Your task to perform on an android device: Open internet settings Image 0: 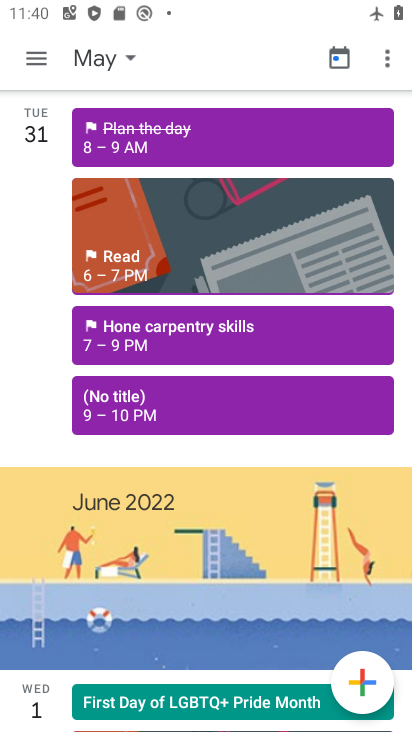
Step 0: press home button
Your task to perform on an android device: Open internet settings Image 1: 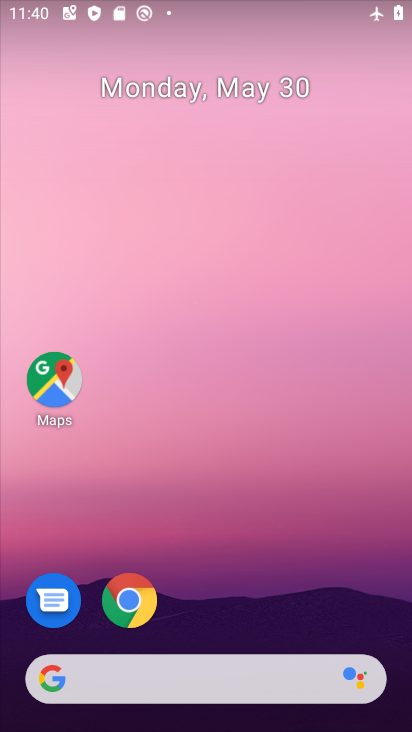
Step 1: drag from (215, 721) to (199, 99)
Your task to perform on an android device: Open internet settings Image 2: 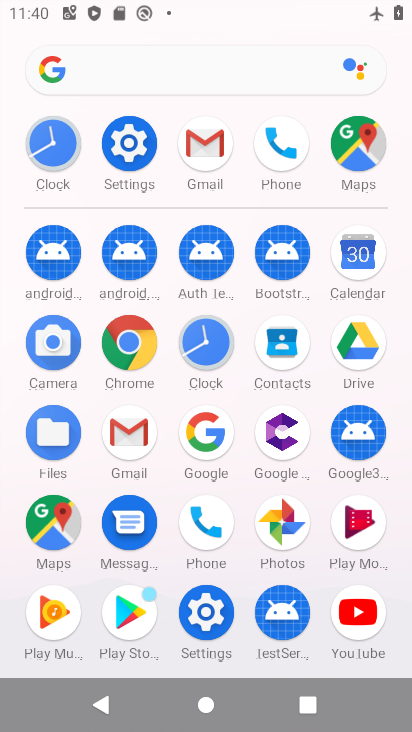
Step 2: click (117, 140)
Your task to perform on an android device: Open internet settings Image 3: 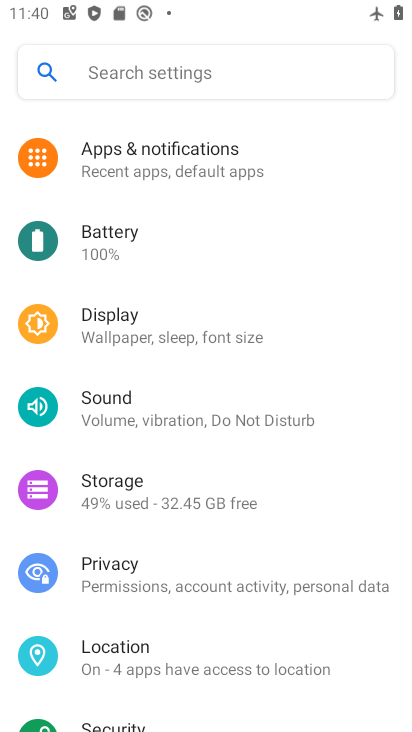
Step 3: drag from (149, 161) to (153, 555)
Your task to perform on an android device: Open internet settings Image 4: 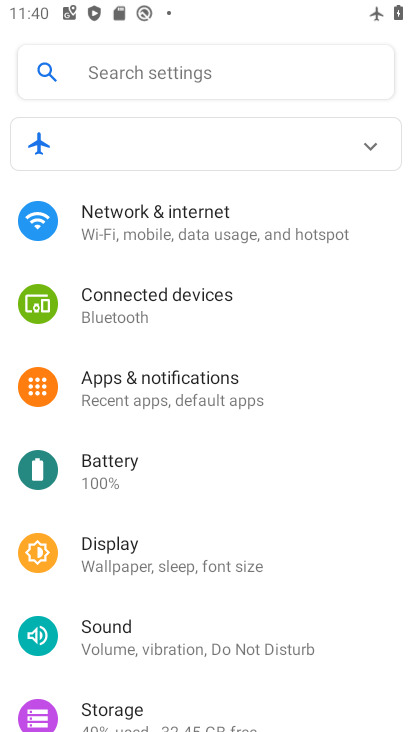
Step 4: click (145, 230)
Your task to perform on an android device: Open internet settings Image 5: 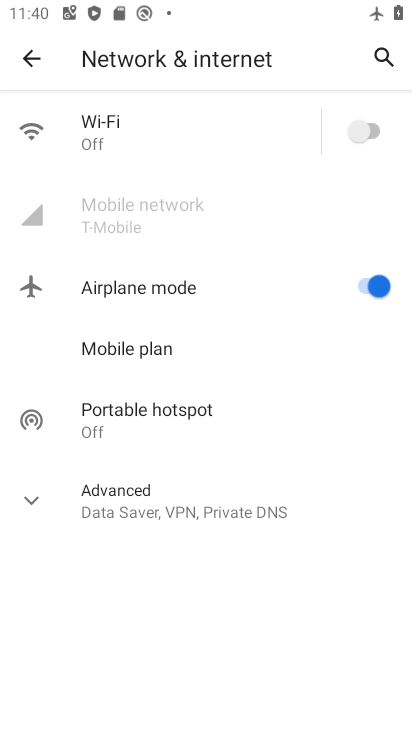
Step 5: task complete